Your task to perform on an android device: toggle wifi Image 0: 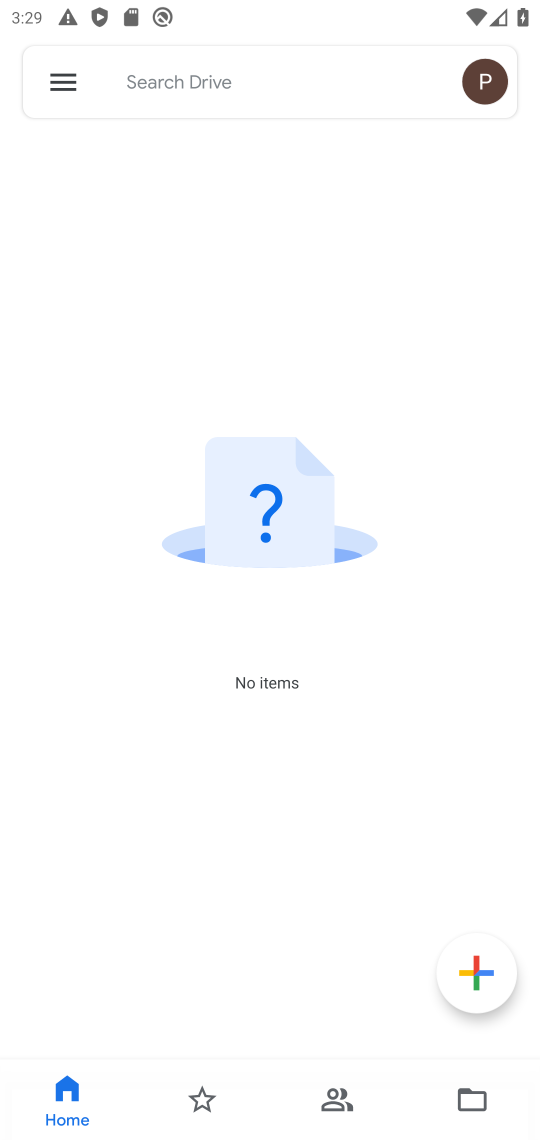
Step 0: press home button
Your task to perform on an android device: toggle wifi Image 1: 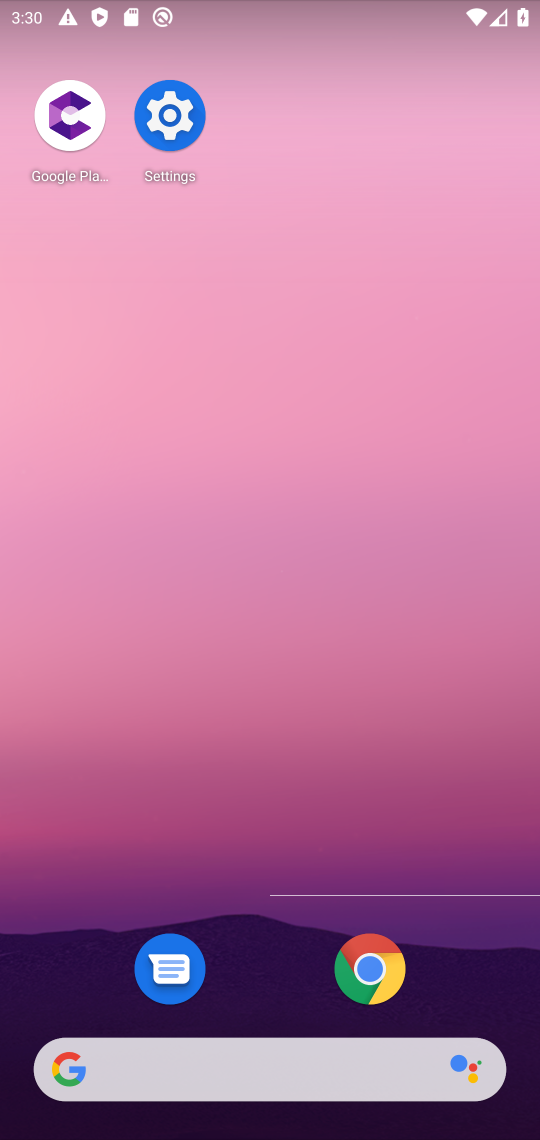
Step 1: click (165, 128)
Your task to perform on an android device: toggle wifi Image 2: 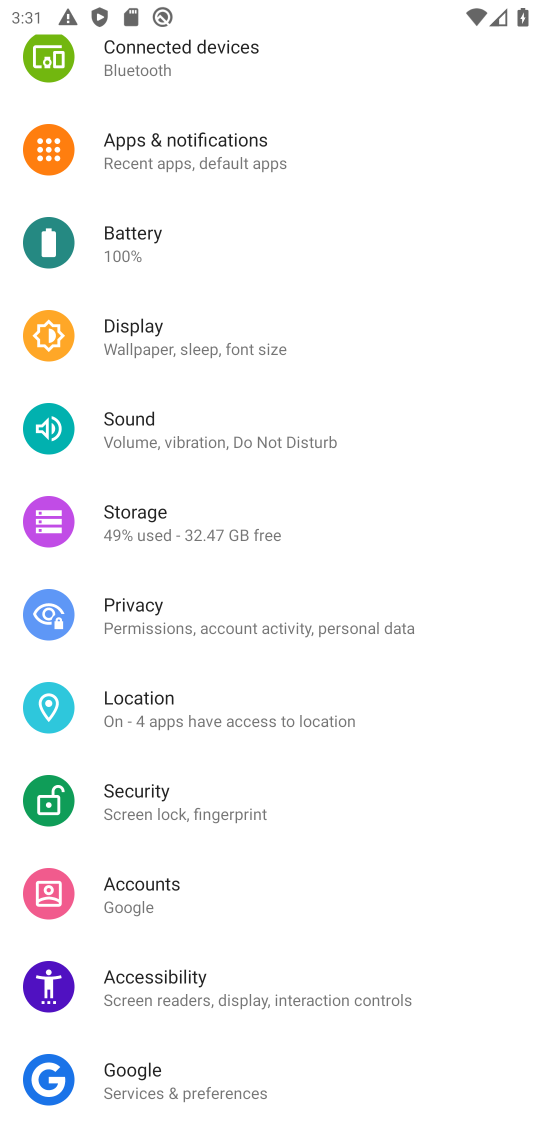
Step 2: drag from (346, 214) to (374, 783)
Your task to perform on an android device: toggle wifi Image 3: 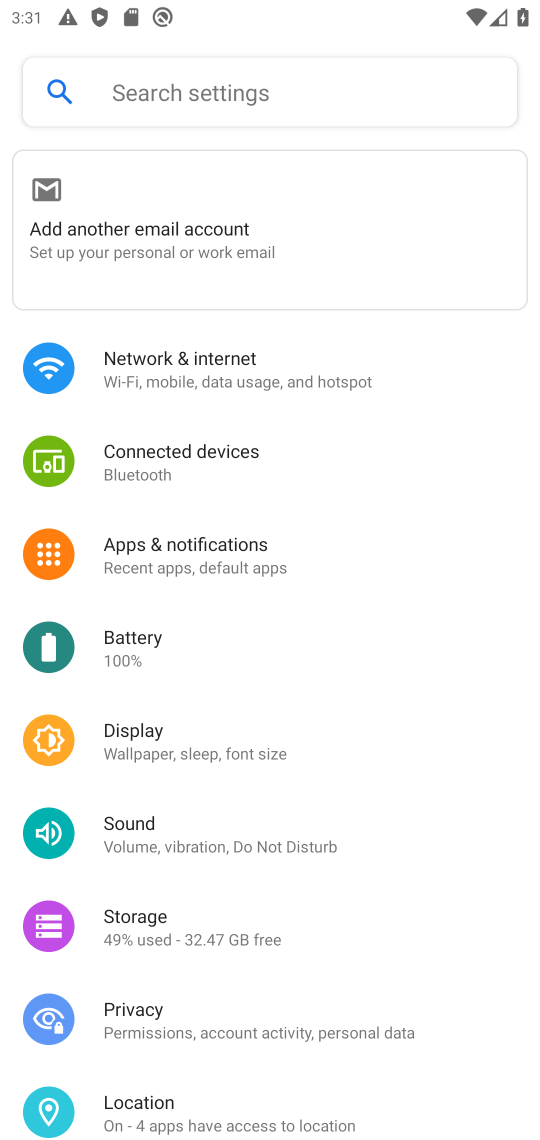
Step 3: click (245, 378)
Your task to perform on an android device: toggle wifi Image 4: 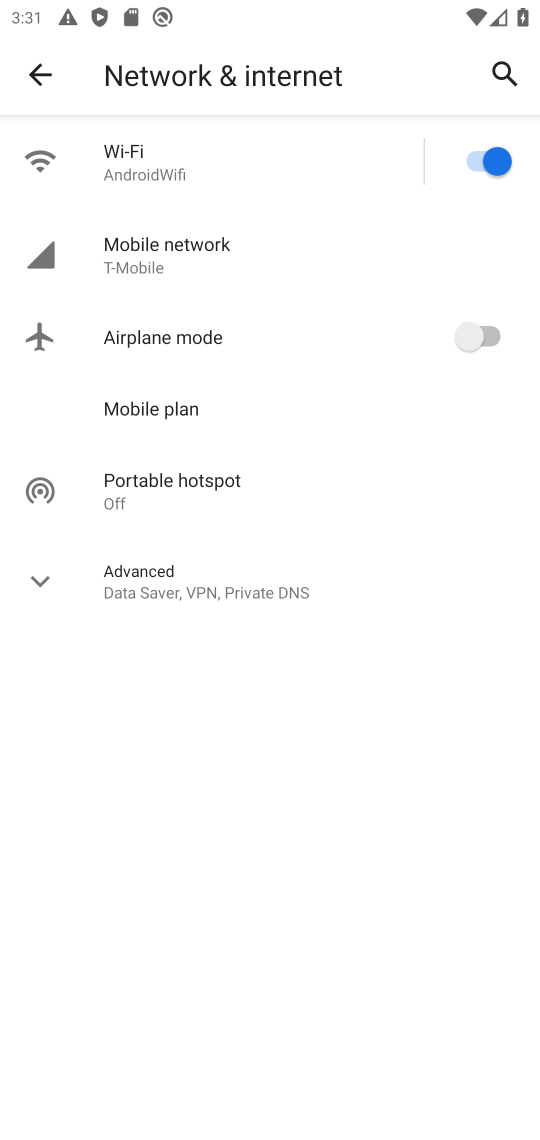
Step 4: click (186, 168)
Your task to perform on an android device: toggle wifi Image 5: 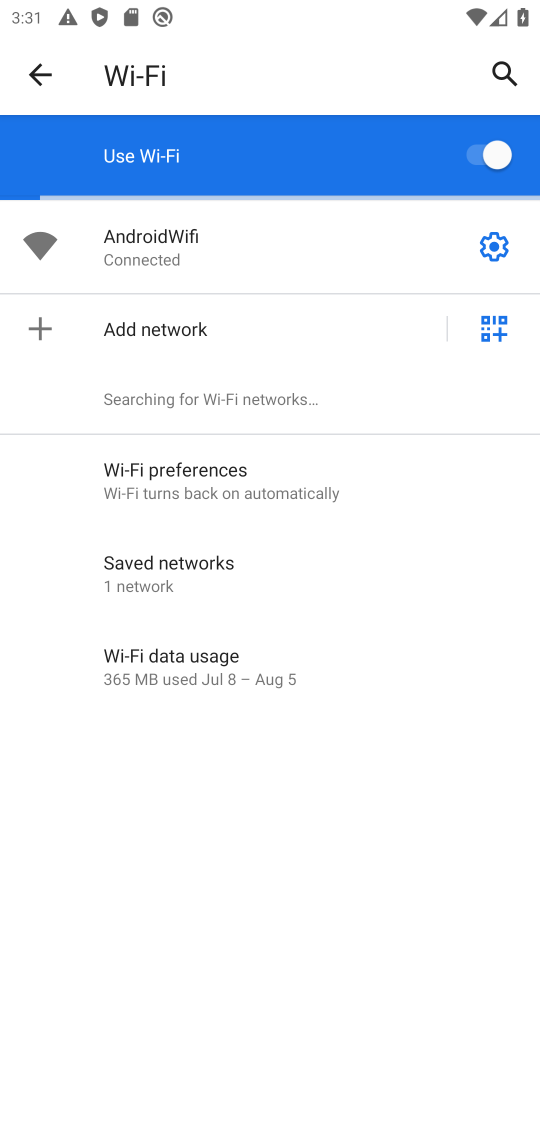
Step 5: click (483, 237)
Your task to perform on an android device: toggle wifi Image 6: 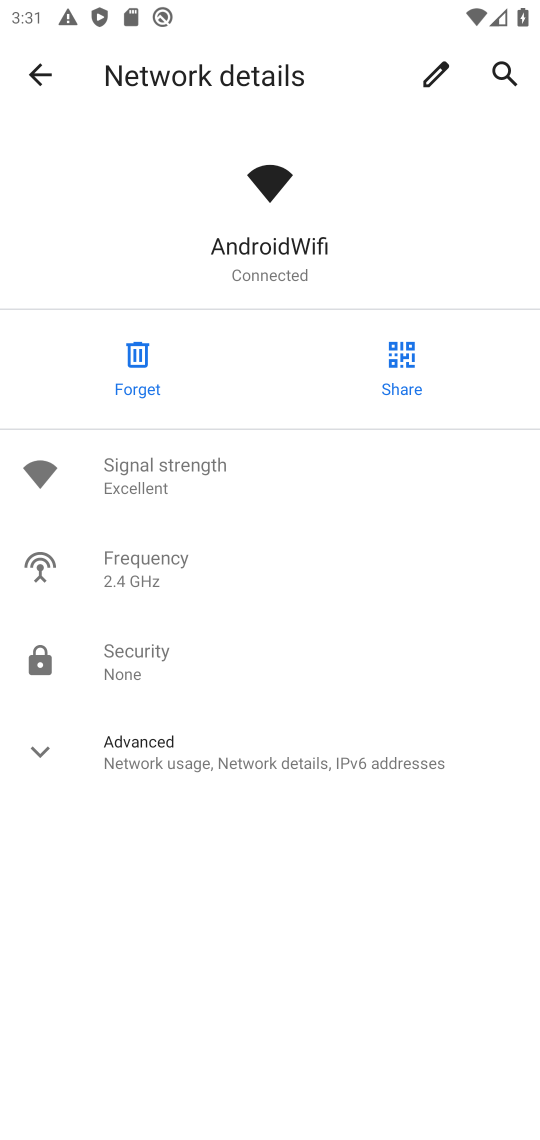
Step 6: task complete